Your task to perform on an android device: toggle priority inbox in the gmail app Image 0: 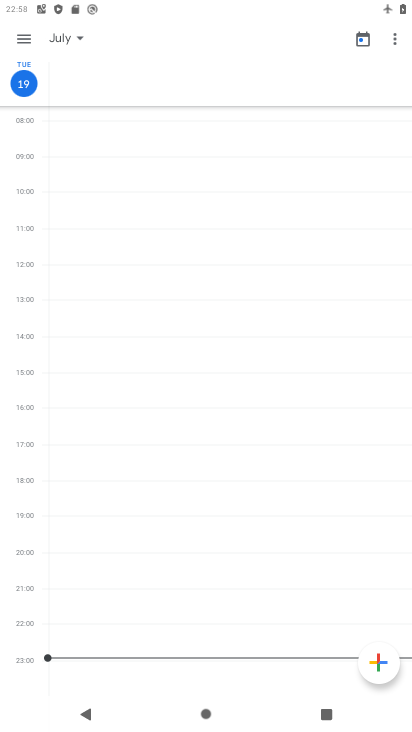
Step 0: press home button
Your task to perform on an android device: toggle priority inbox in the gmail app Image 1: 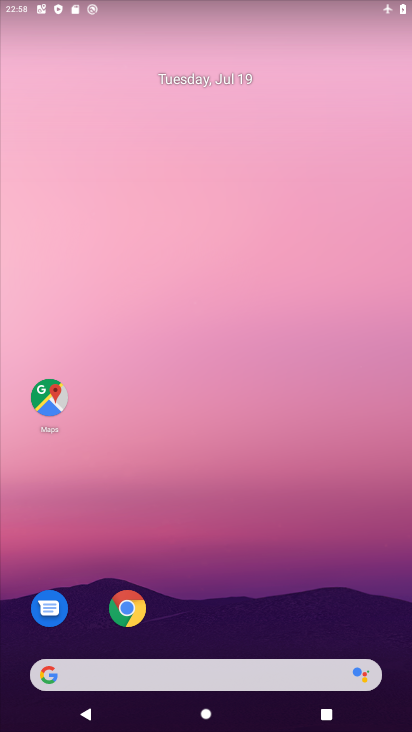
Step 1: drag from (323, 630) to (252, 134)
Your task to perform on an android device: toggle priority inbox in the gmail app Image 2: 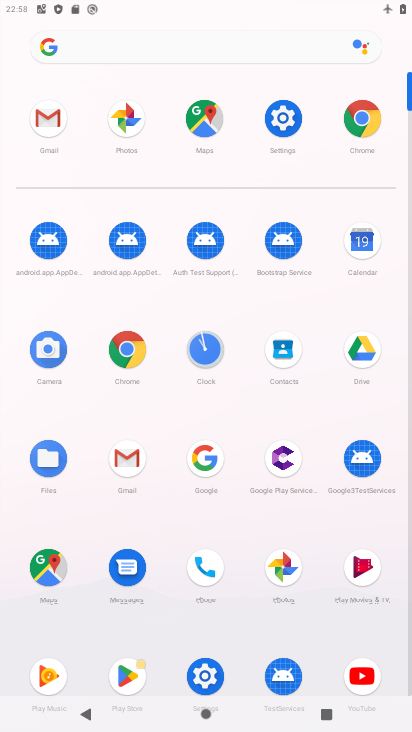
Step 2: click (57, 119)
Your task to perform on an android device: toggle priority inbox in the gmail app Image 3: 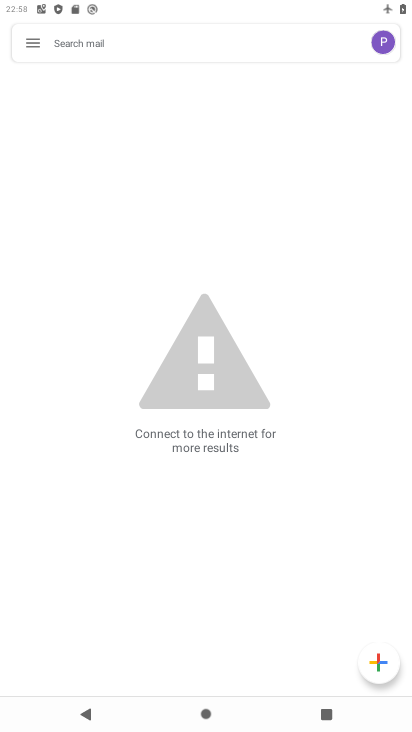
Step 3: click (36, 49)
Your task to perform on an android device: toggle priority inbox in the gmail app Image 4: 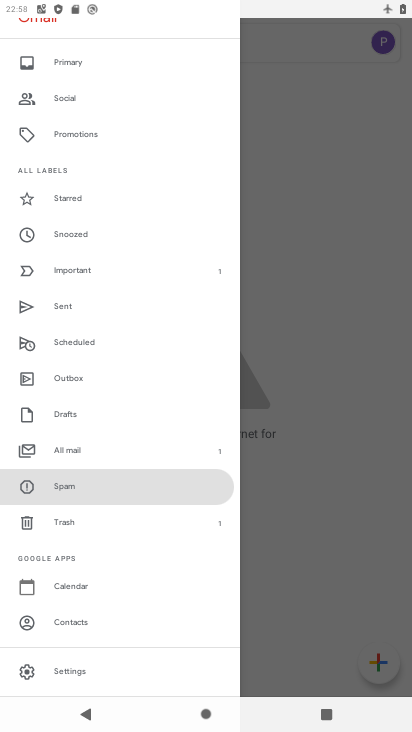
Step 4: click (73, 670)
Your task to perform on an android device: toggle priority inbox in the gmail app Image 5: 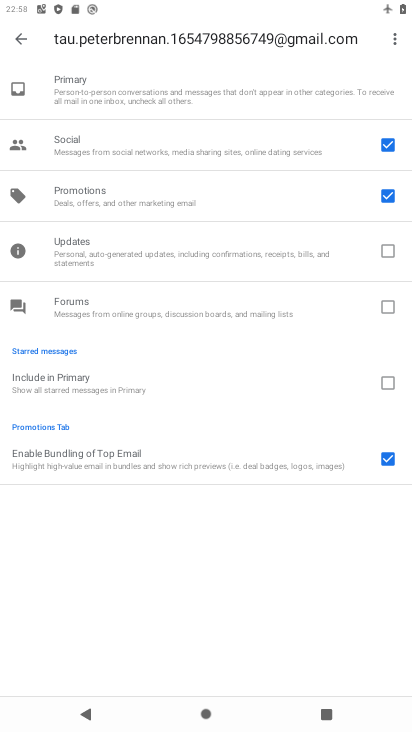
Step 5: click (17, 33)
Your task to perform on an android device: toggle priority inbox in the gmail app Image 6: 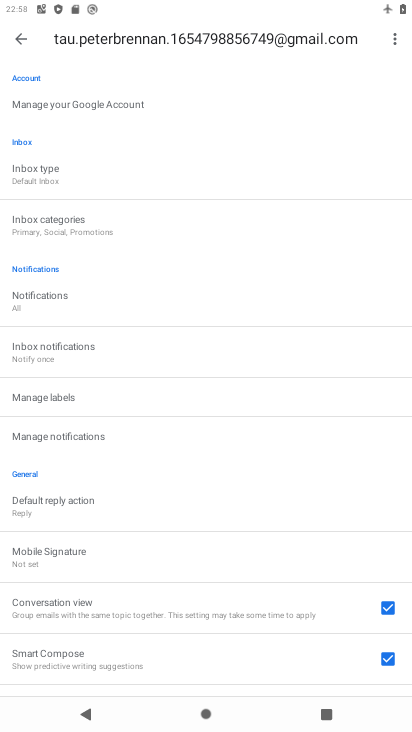
Step 6: drag from (125, 132) to (150, 490)
Your task to perform on an android device: toggle priority inbox in the gmail app Image 7: 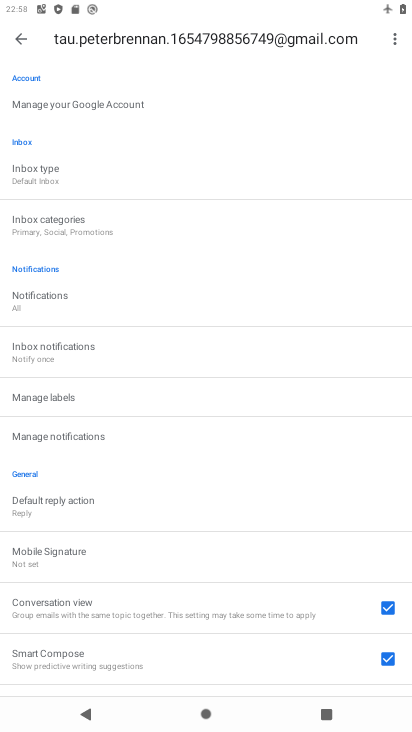
Step 7: click (41, 178)
Your task to perform on an android device: toggle priority inbox in the gmail app Image 8: 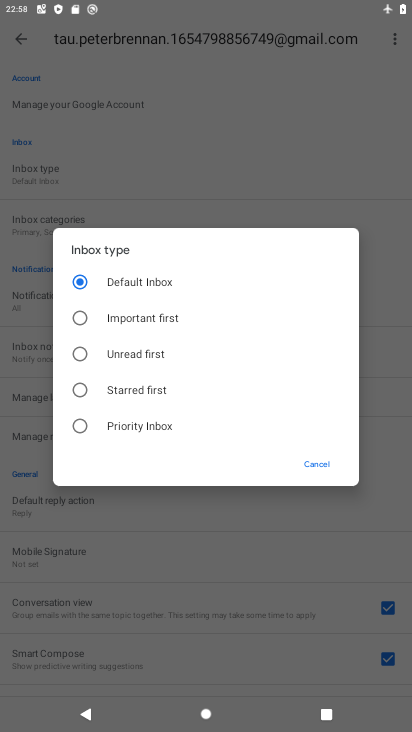
Step 8: click (127, 426)
Your task to perform on an android device: toggle priority inbox in the gmail app Image 9: 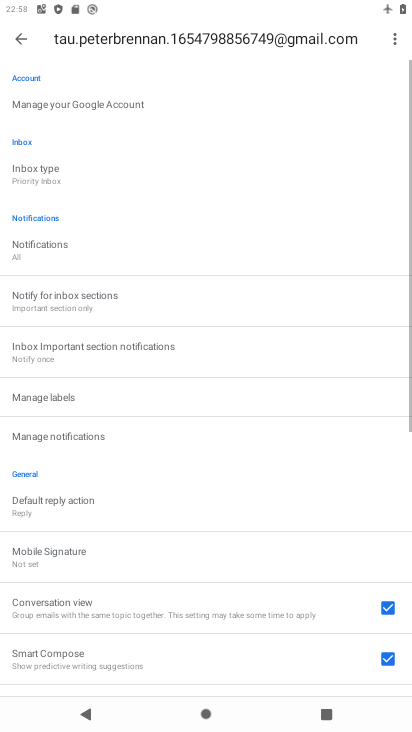
Step 9: task complete